Your task to perform on an android device: Show me recent news Image 0: 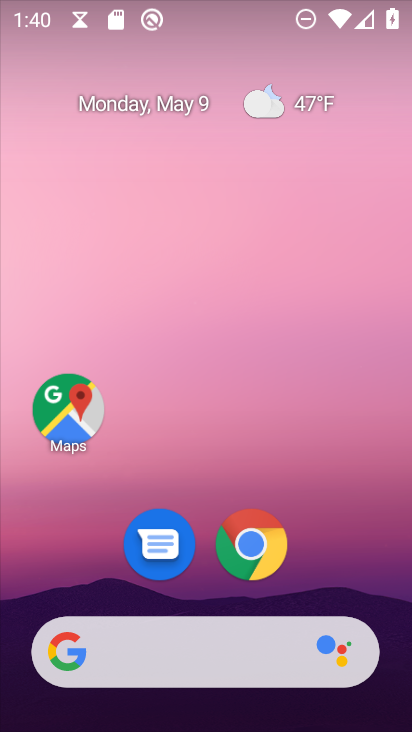
Step 0: drag from (383, 515) to (409, 164)
Your task to perform on an android device: Show me recent news Image 1: 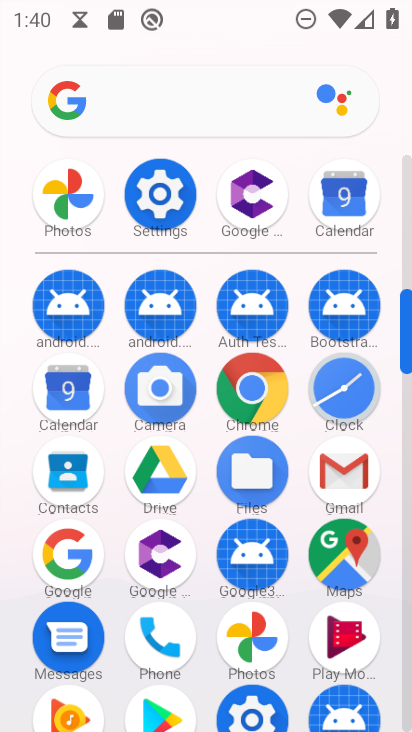
Step 1: click (255, 372)
Your task to perform on an android device: Show me recent news Image 2: 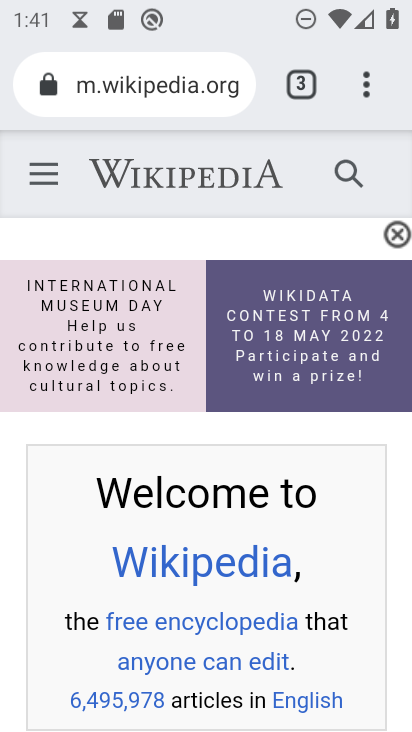
Step 2: task complete